Your task to perform on an android device: Open calendar and show me the first week of next month Image 0: 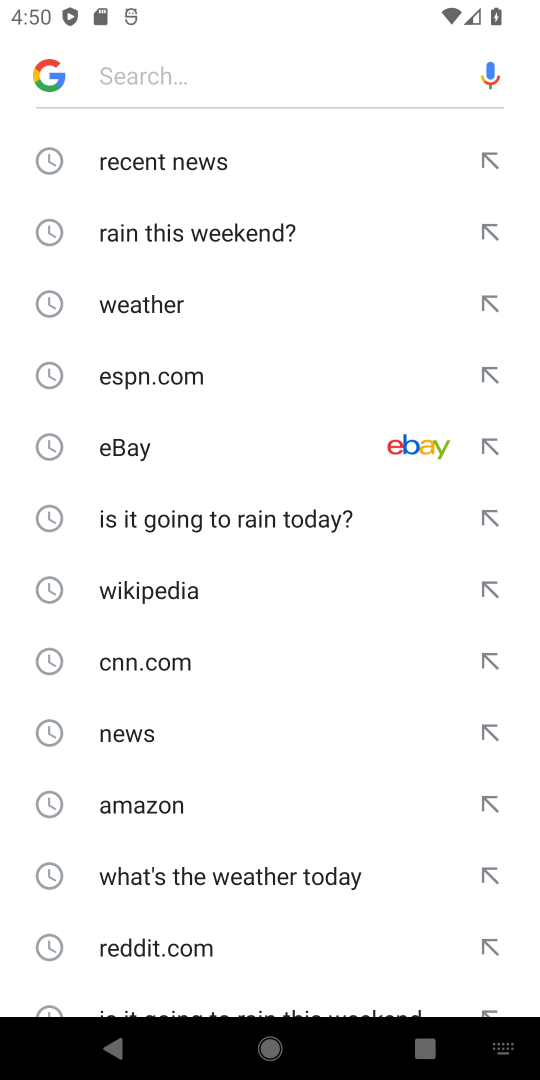
Step 0: press home button
Your task to perform on an android device: Open calendar and show me the first week of next month Image 1: 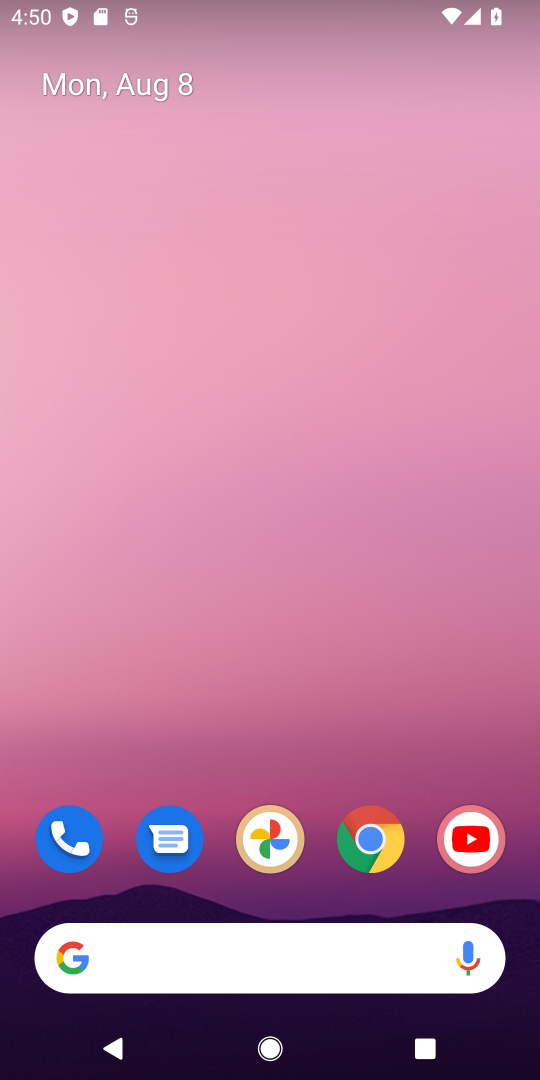
Step 1: drag from (210, 841) to (228, 204)
Your task to perform on an android device: Open calendar and show me the first week of next month Image 2: 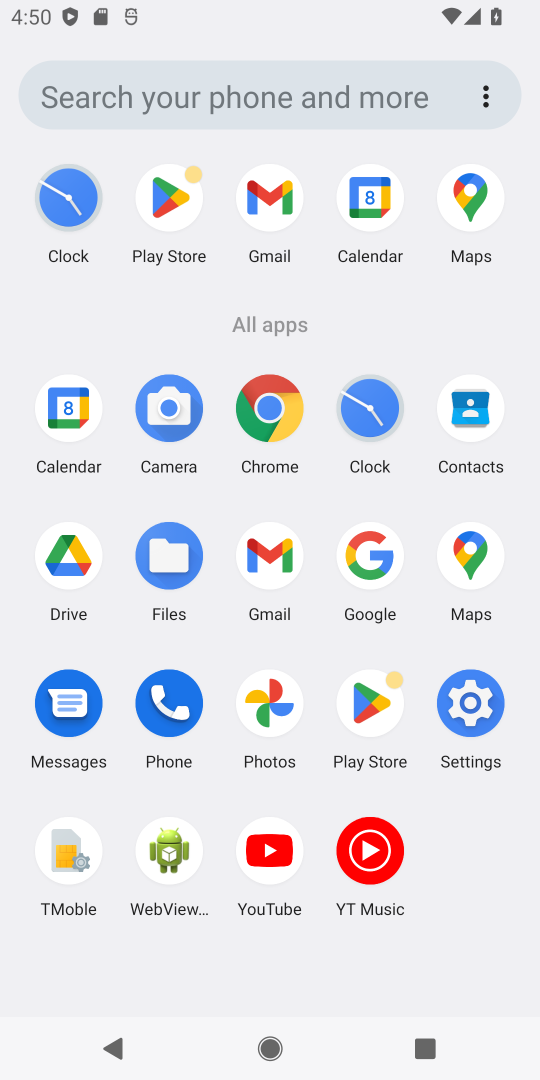
Step 2: click (75, 406)
Your task to perform on an android device: Open calendar and show me the first week of next month Image 3: 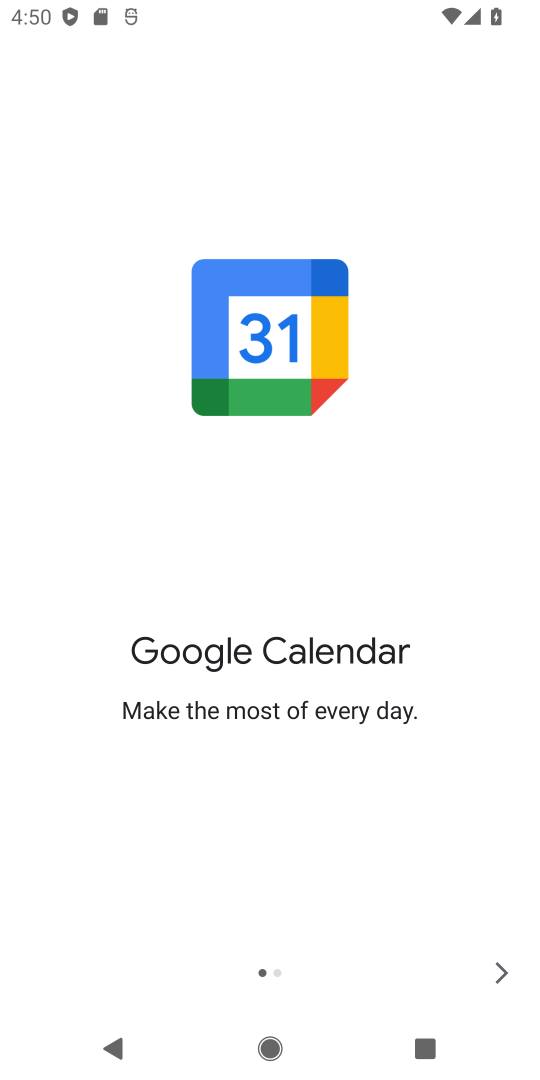
Step 3: click (499, 954)
Your task to perform on an android device: Open calendar and show me the first week of next month Image 4: 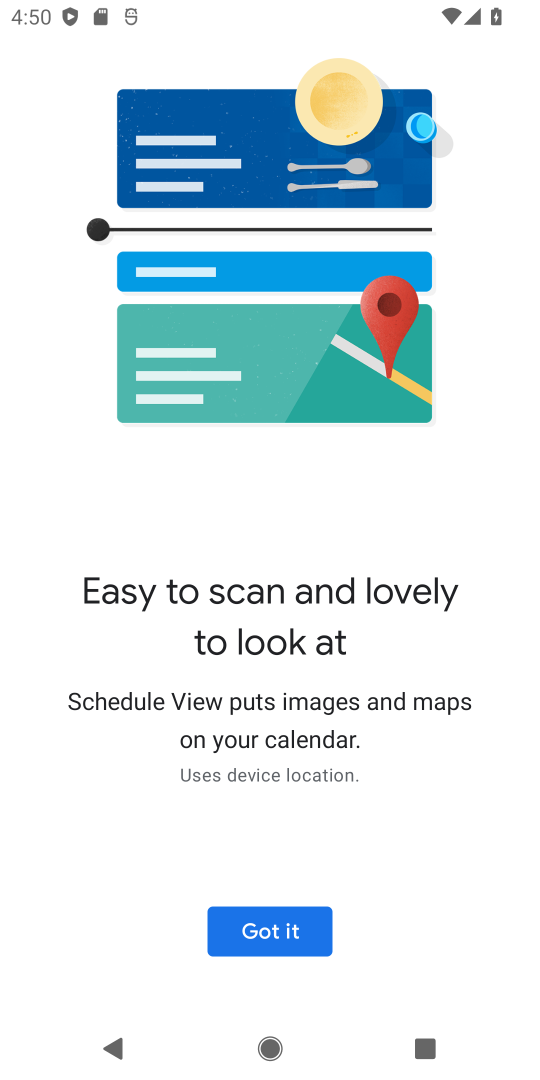
Step 4: click (251, 928)
Your task to perform on an android device: Open calendar and show me the first week of next month Image 5: 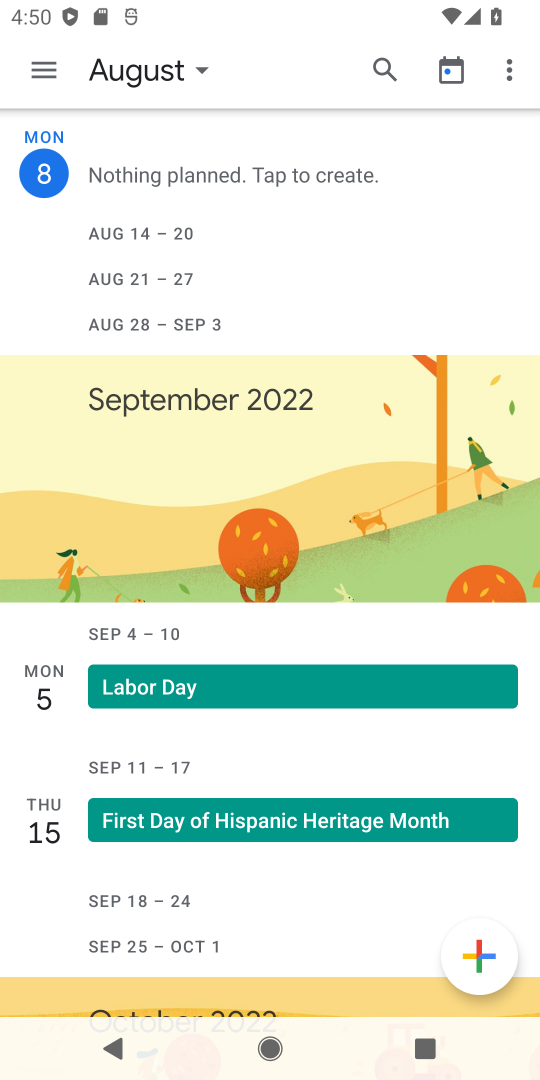
Step 5: click (40, 68)
Your task to perform on an android device: Open calendar and show me the first week of next month Image 6: 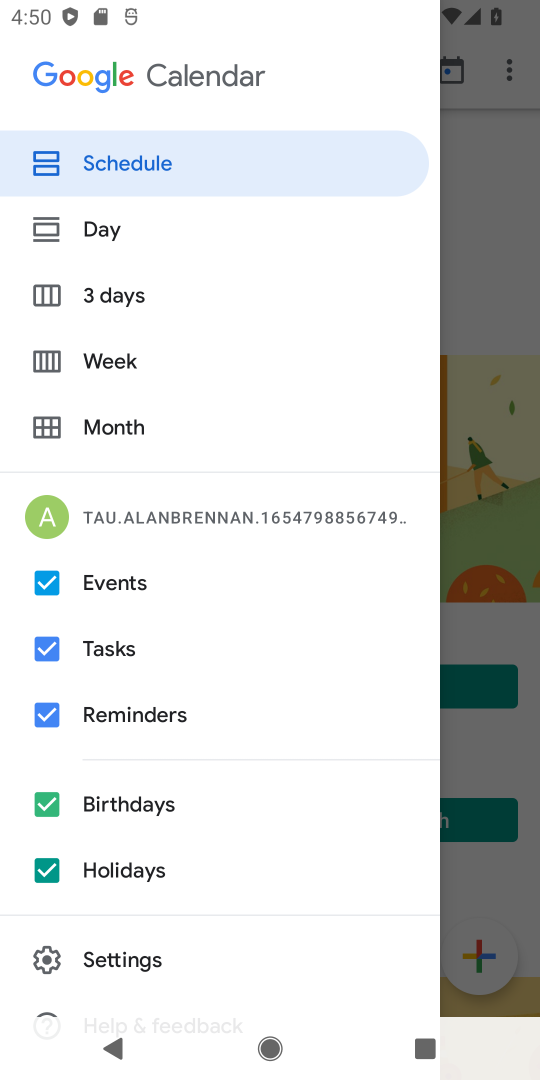
Step 6: click (105, 353)
Your task to perform on an android device: Open calendar and show me the first week of next month Image 7: 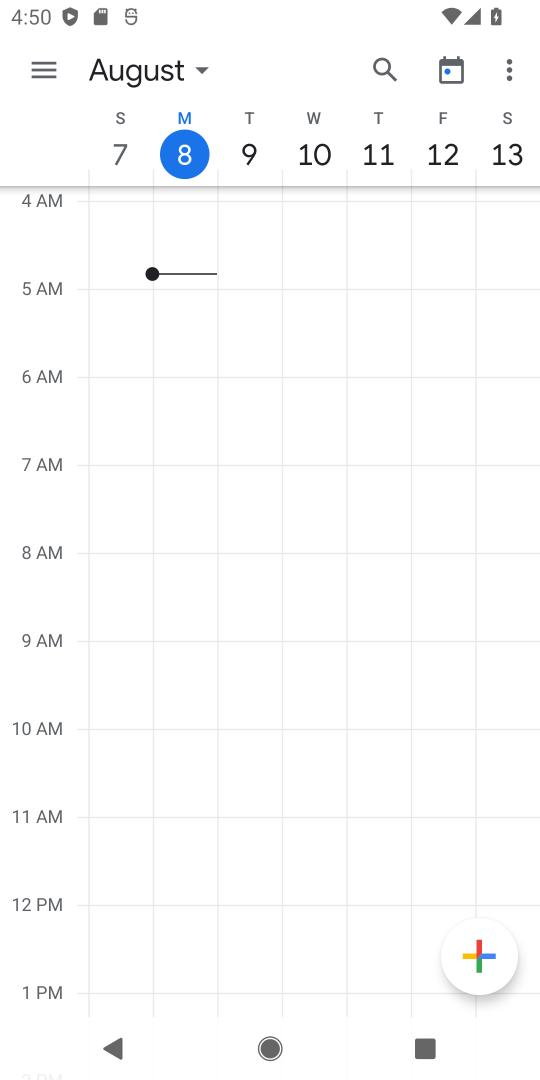
Step 7: task complete